Your task to perform on an android device: open a new tab in the chrome app Image 0: 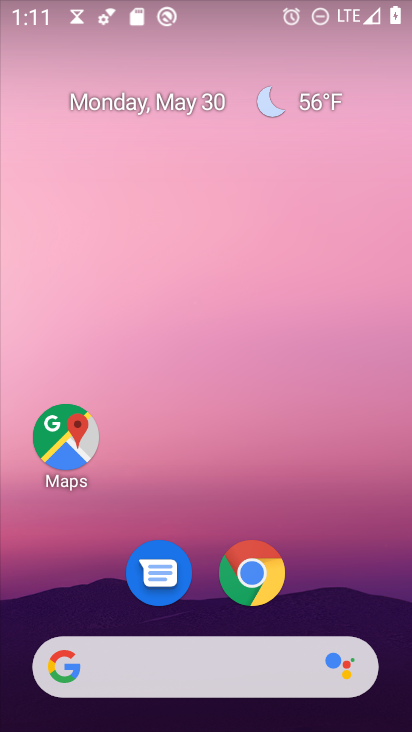
Step 0: drag from (337, 601) to (304, 5)
Your task to perform on an android device: open a new tab in the chrome app Image 1: 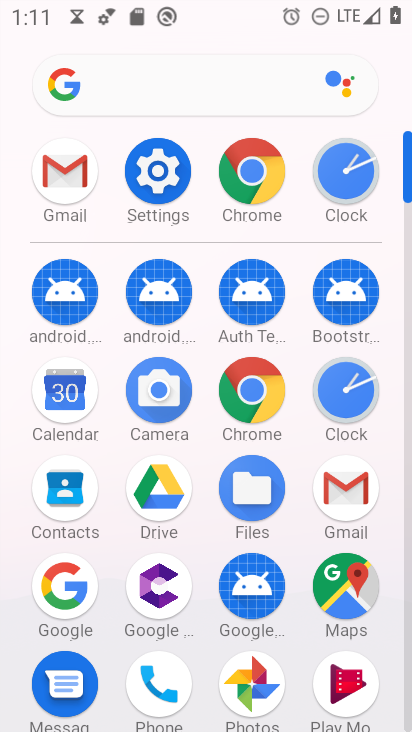
Step 1: click (285, 384)
Your task to perform on an android device: open a new tab in the chrome app Image 2: 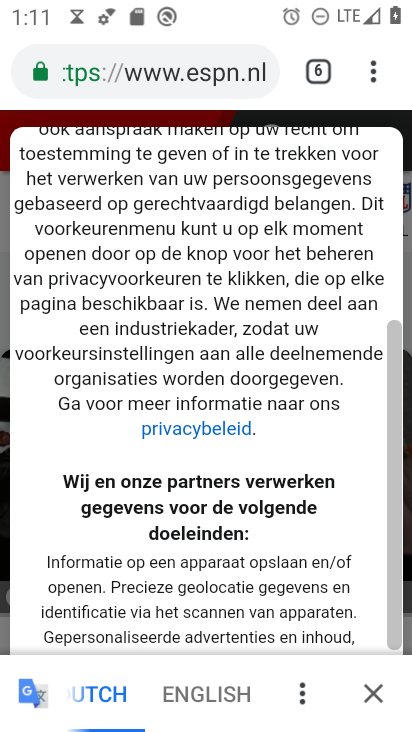
Step 2: task complete